Your task to perform on an android device: clear history in the chrome app Image 0: 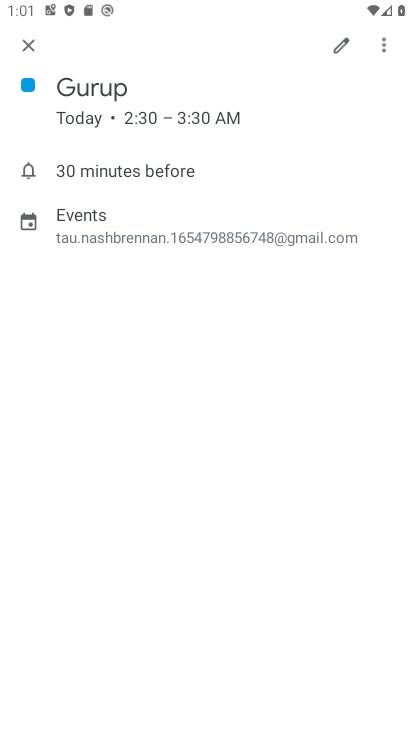
Step 0: press home button
Your task to perform on an android device: clear history in the chrome app Image 1: 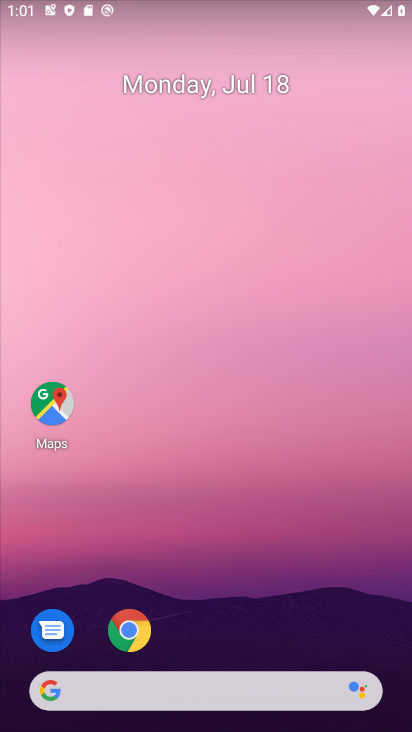
Step 1: click (129, 624)
Your task to perform on an android device: clear history in the chrome app Image 2: 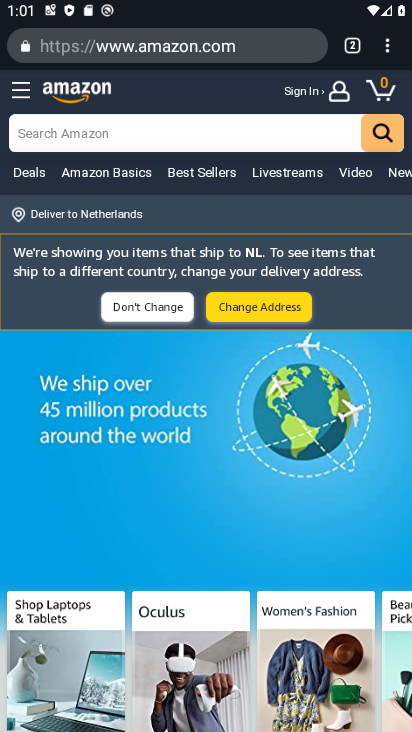
Step 2: click (384, 49)
Your task to perform on an android device: clear history in the chrome app Image 3: 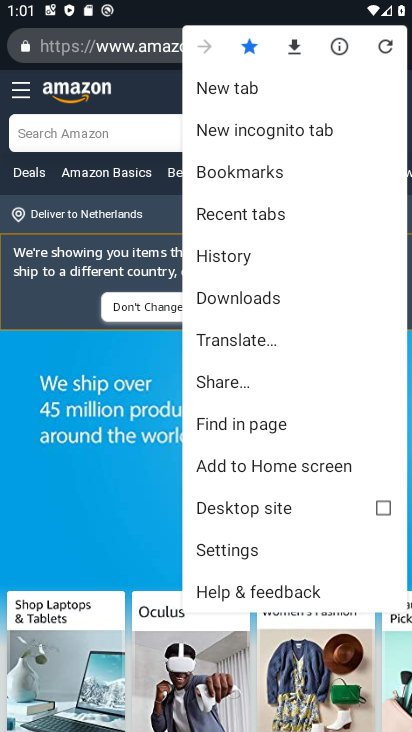
Step 3: click (240, 253)
Your task to perform on an android device: clear history in the chrome app Image 4: 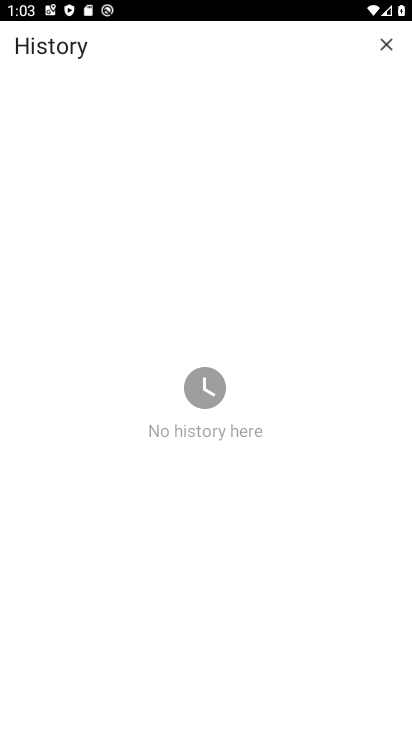
Step 4: task complete